Your task to perform on an android device: set an alarm Image 0: 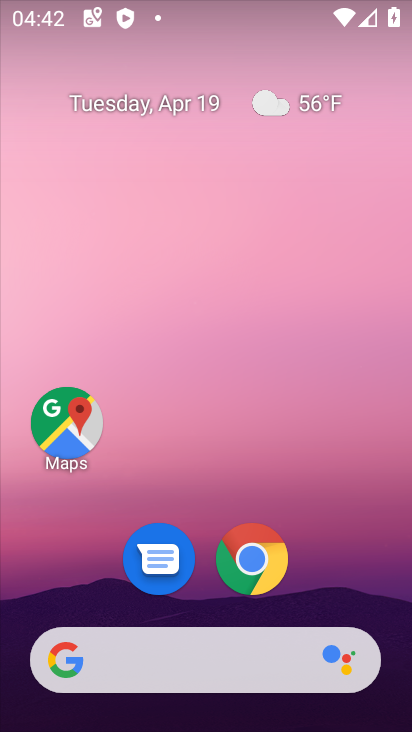
Step 0: drag from (379, 590) to (295, 180)
Your task to perform on an android device: set an alarm Image 1: 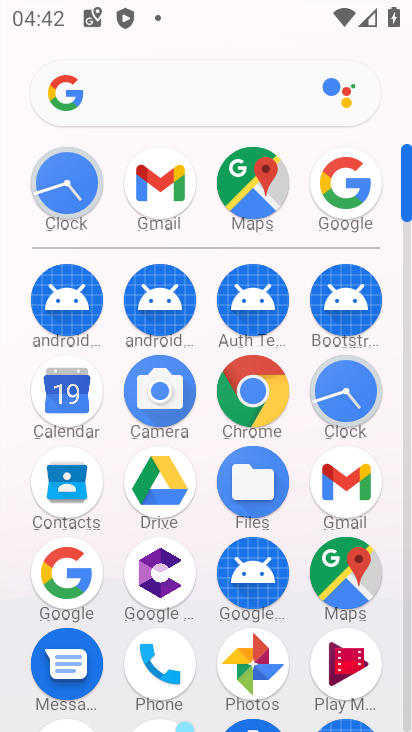
Step 1: click (334, 399)
Your task to perform on an android device: set an alarm Image 2: 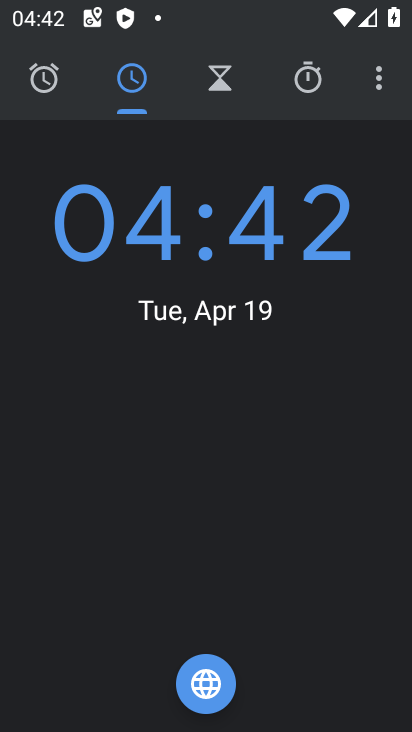
Step 2: click (45, 87)
Your task to perform on an android device: set an alarm Image 3: 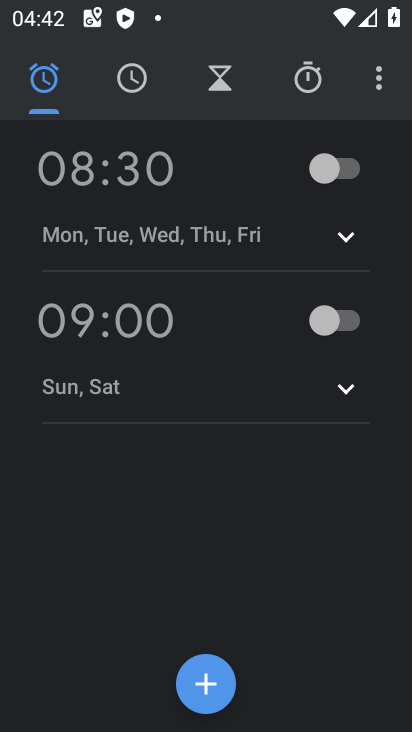
Step 3: click (338, 317)
Your task to perform on an android device: set an alarm Image 4: 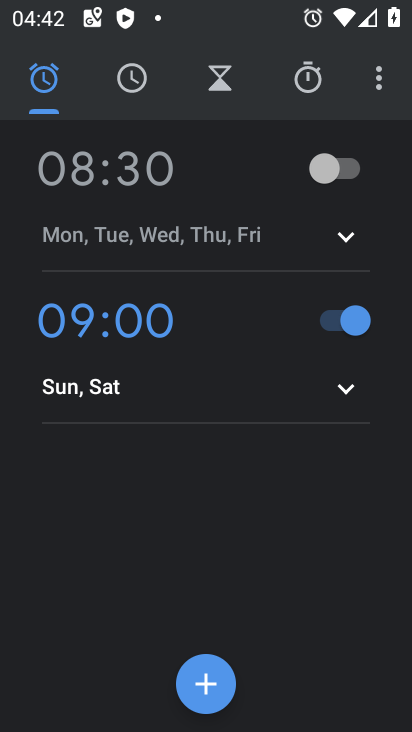
Step 4: task complete